Your task to perform on an android device: Go to sound settings Image 0: 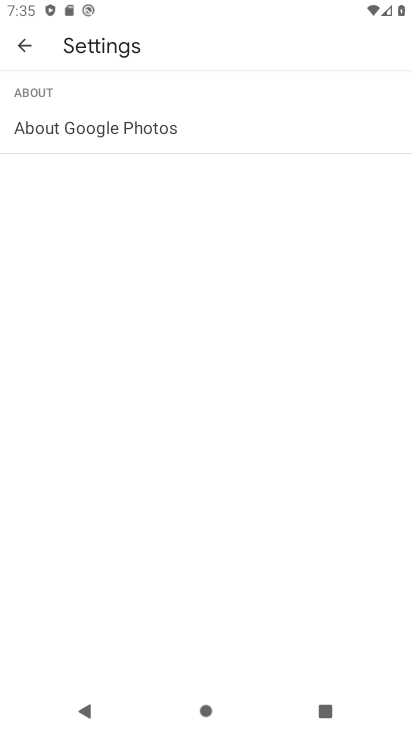
Step 0: press home button
Your task to perform on an android device: Go to sound settings Image 1: 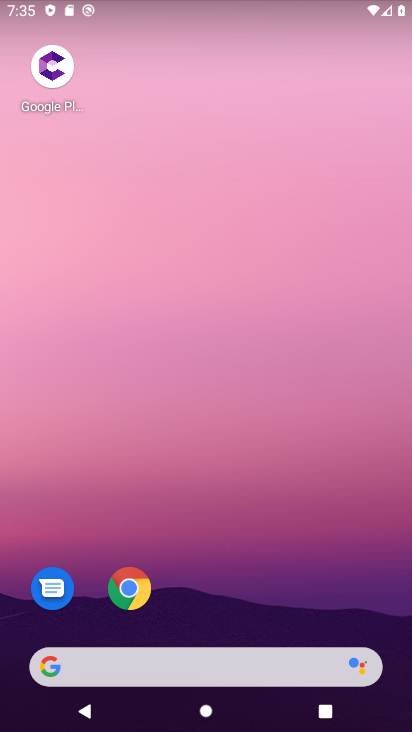
Step 1: drag from (281, 626) to (279, 232)
Your task to perform on an android device: Go to sound settings Image 2: 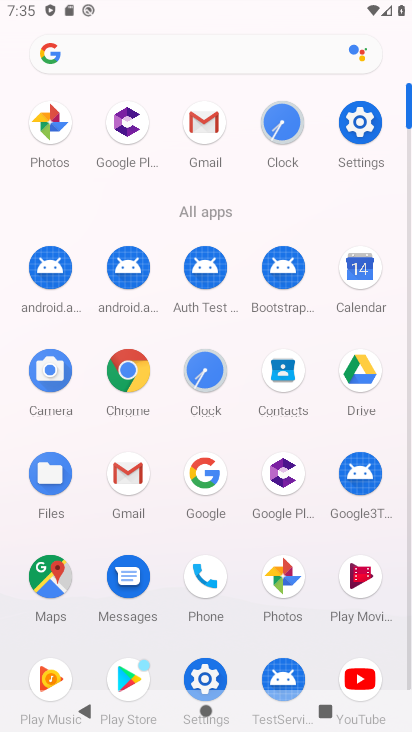
Step 2: click (355, 119)
Your task to perform on an android device: Go to sound settings Image 3: 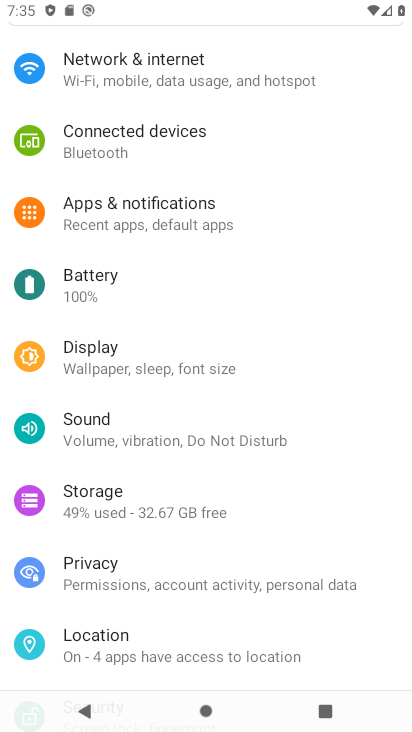
Step 3: click (183, 431)
Your task to perform on an android device: Go to sound settings Image 4: 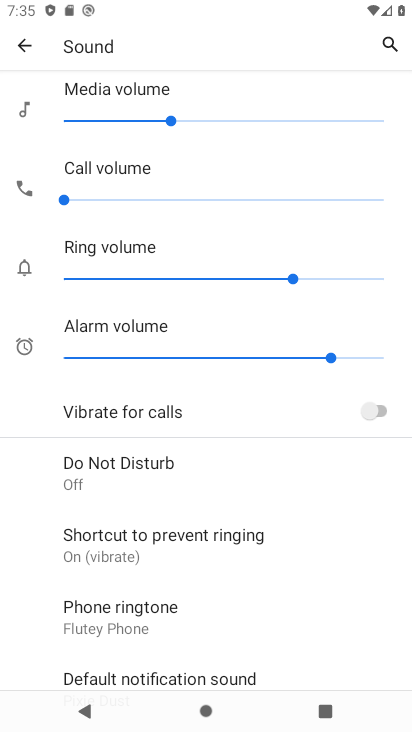
Step 4: task complete